Your task to perform on an android device: toggle pop-ups in chrome Image 0: 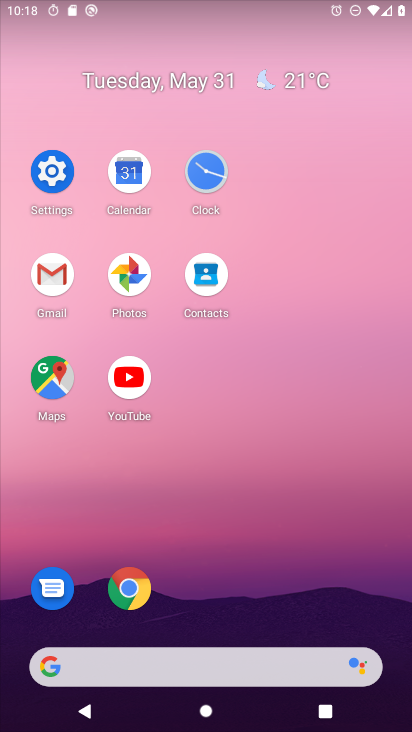
Step 0: click (149, 595)
Your task to perform on an android device: toggle pop-ups in chrome Image 1: 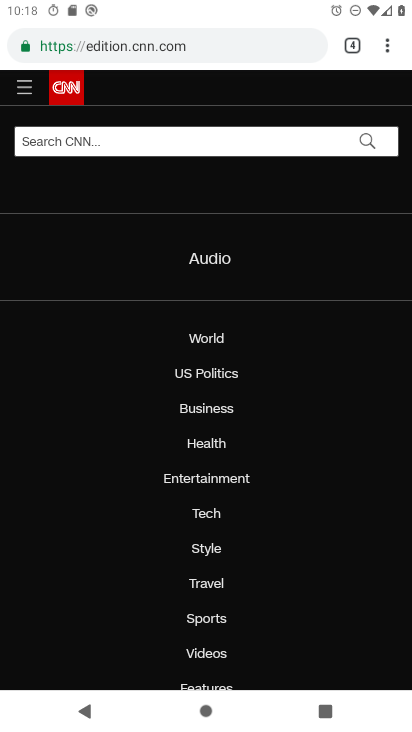
Step 1: click (394, 27)
Your task to perform on an android device: toggle pop-ups in chrome Image 2: 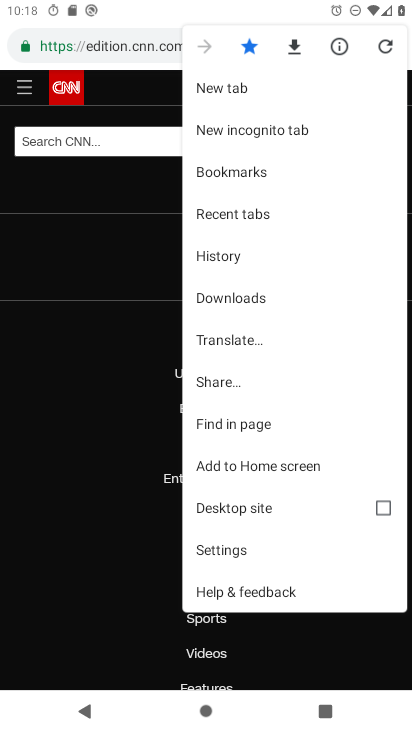
Step 2: drag from (320, 478) to (330, 118)
Your task to perform on an android device: toggle pop-ups in chrome Image 3: 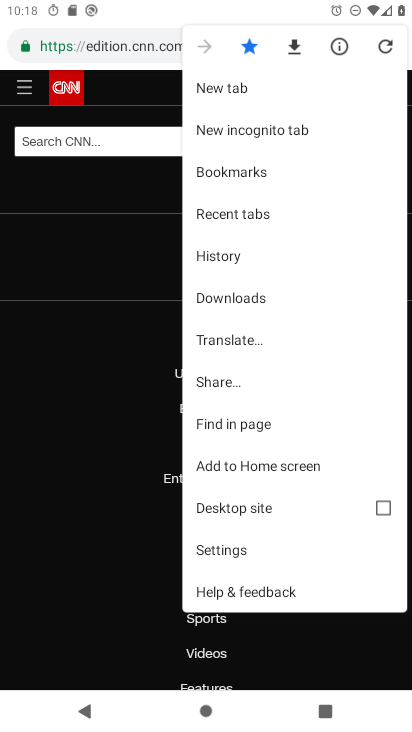
Step 3: click (261, 550)
Your task to perform on an android device: toggle pop-ups in chrome Image 4: 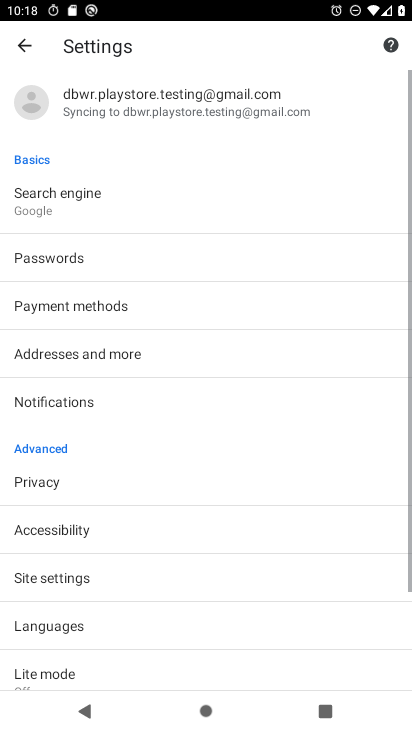
Step 4: drag from (261, 550) to (252, 160)
Your task to perform on an android device: toggle pop-ups in chrome Image 5: 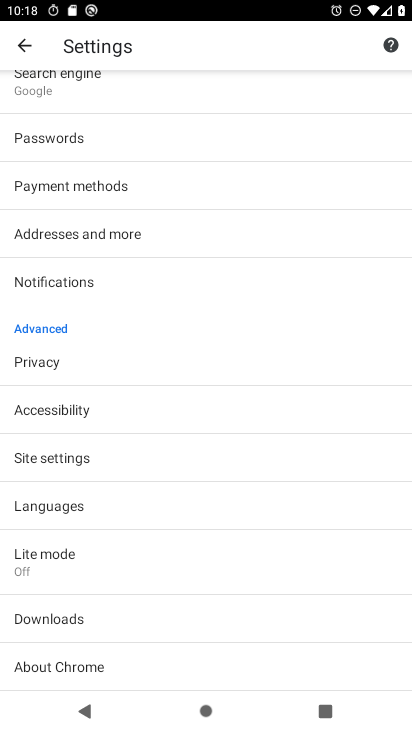
Step 5: click (135, 444)
Your task to perform on an android device: toggle pop-ups in chrome Image 6: 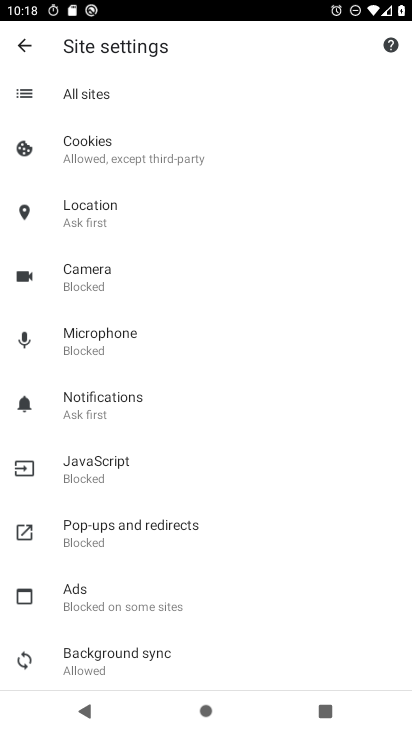
Step 6: click (147, 544)
Your task to perform on an android device: toggle pop-ups in chrome Image 7: 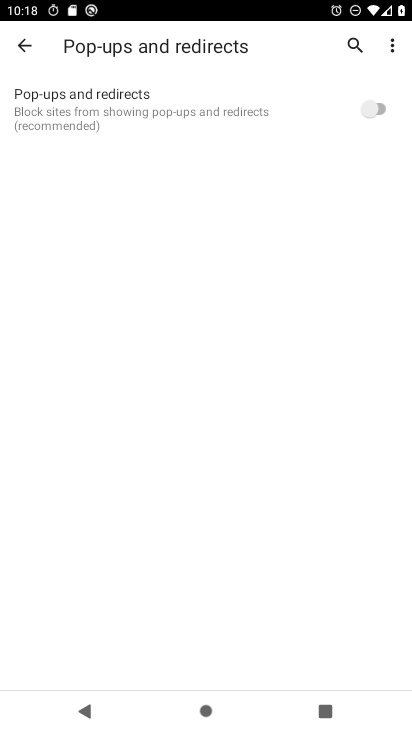
Step 7: click (364, 111)
Your task to perform on an android device: toggle pop-ups in chrome Image 8: 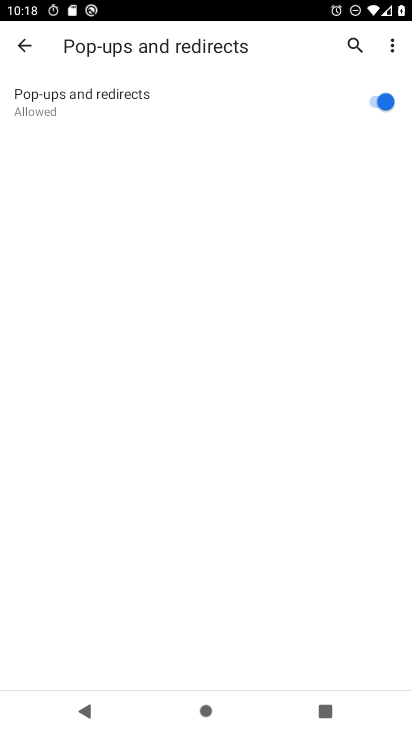
Step 8: task complete